Your task to perform on an android device: toggle translation in the chrome app Image 0: 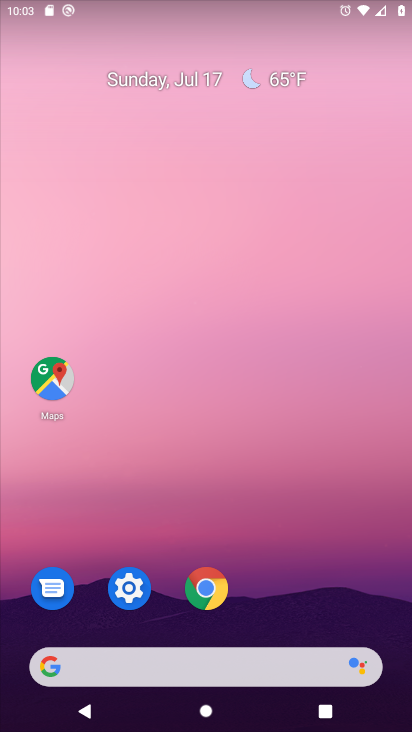
Step 0: drag from (252, 454) to (221, 212)
Your task to perform on an android device: toggle translation in the chrome app Image 1: 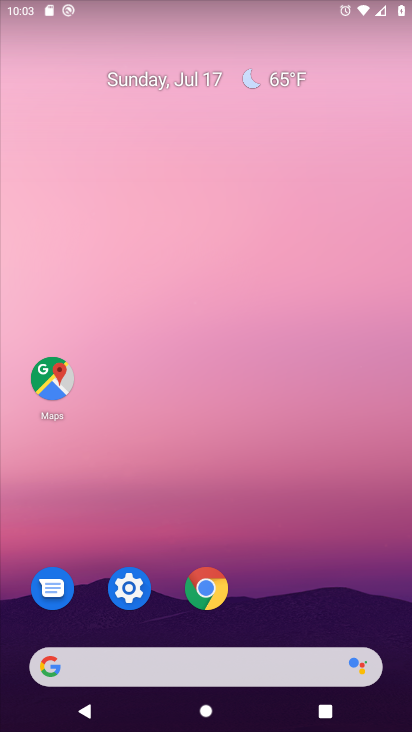
Step 1: drag from (191, 387) to (175, 282)
Your task to perform on an android device: toggle translation in the chrome app Image 2: 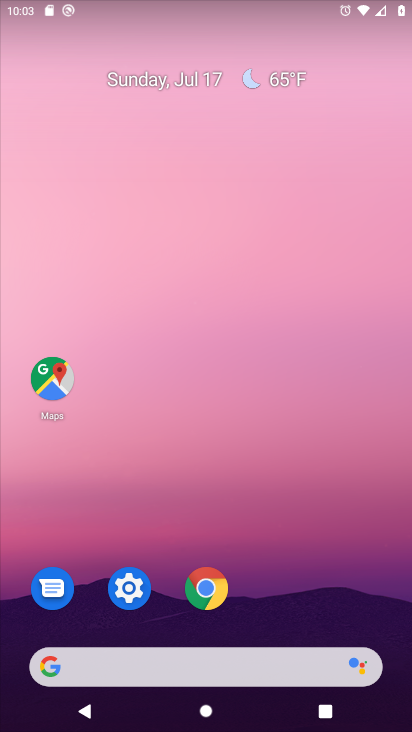
Step 2: drag from (237, 718) to (118, 65)
Your task to perform on an android device: toggle translation in the chrome app Image 3: 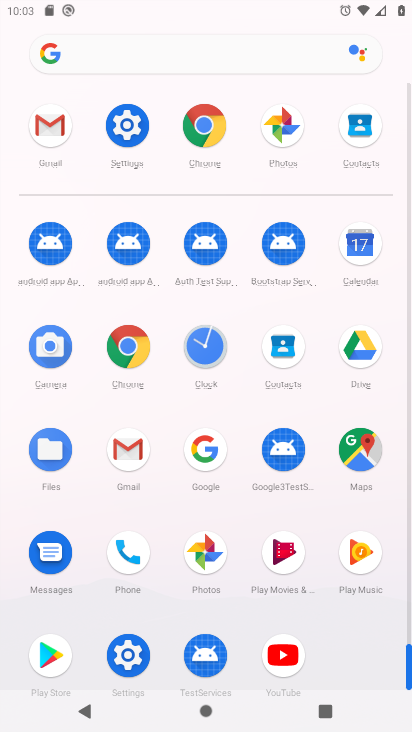
Step 3: drag from (276, 622) to (118, 3)
Your task to perform on an android device: toggle translation in the chrome app Image 4: 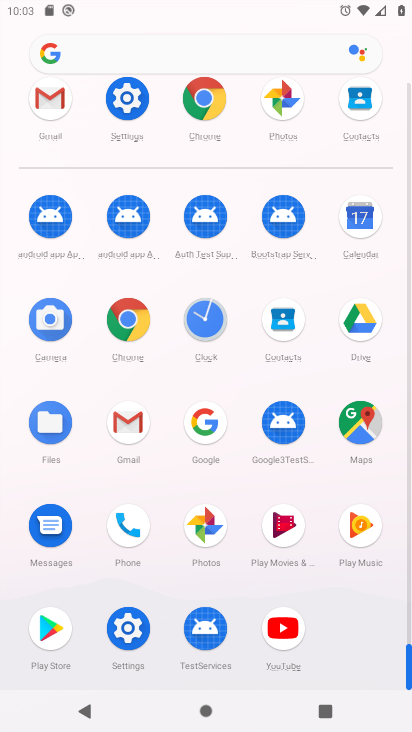
Step 4: click (118, 326)
Your task to perform on an android device: toggle translation in the chrome app Image 5: 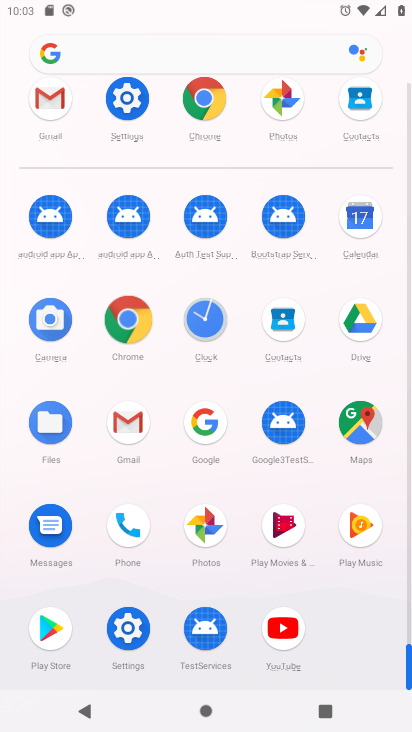
Step 5: click (123, 322)
Your task to perform on an android device: toggle translation in the chrome app Image 6: 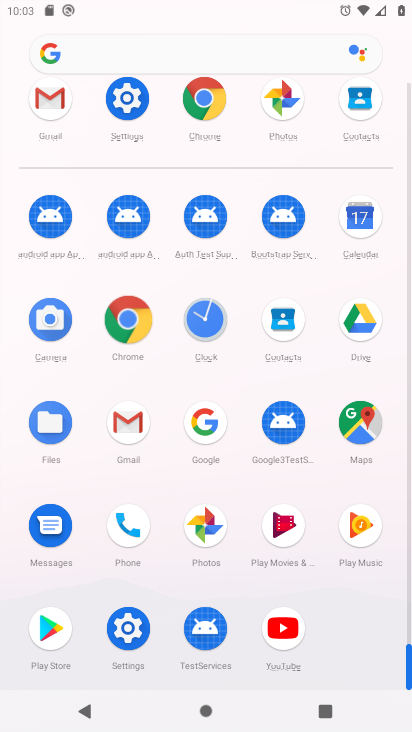
Step 6: click (127, 322)
Your task to perform on an android device: toggle translation in the chrome app Image 7: 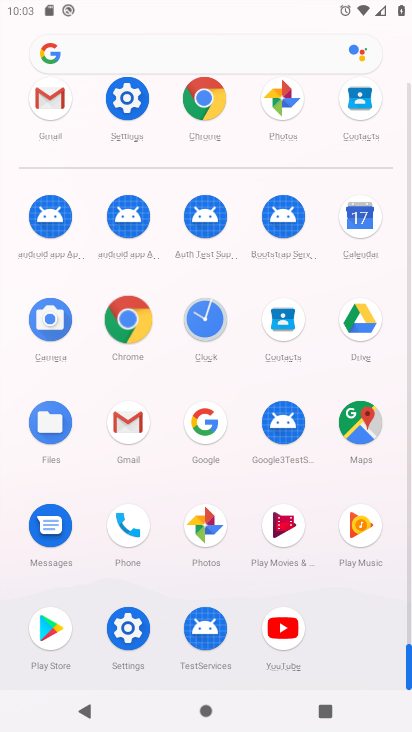
Step 7: click (127, 322)
Your task to perform on an android device: toggle translation in the chrome app Image 8: 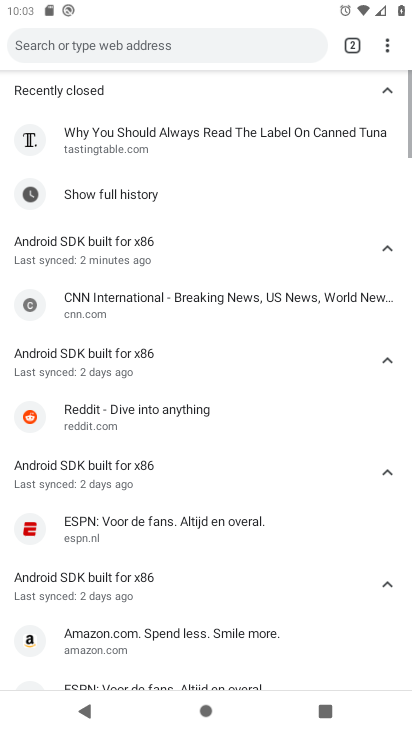
Step 8: click (128, 316)
Your task to perform on an android device: toggle translation in the chrome app Image 9: 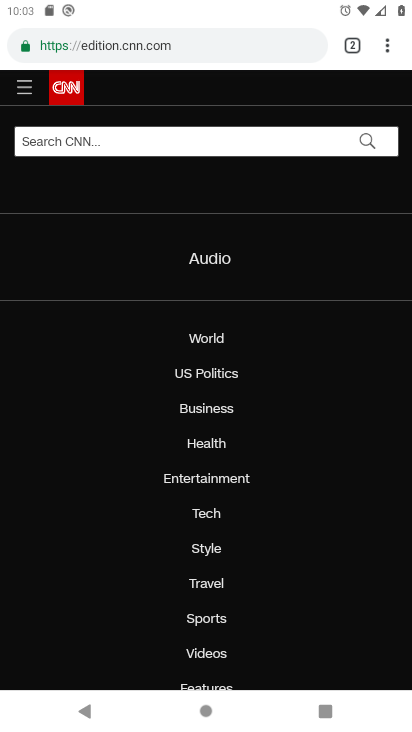
Step 9: drag from (204, 188) to (201, 685)
Your task to perform on an android device: toggle translation in the chrome app Image 10: 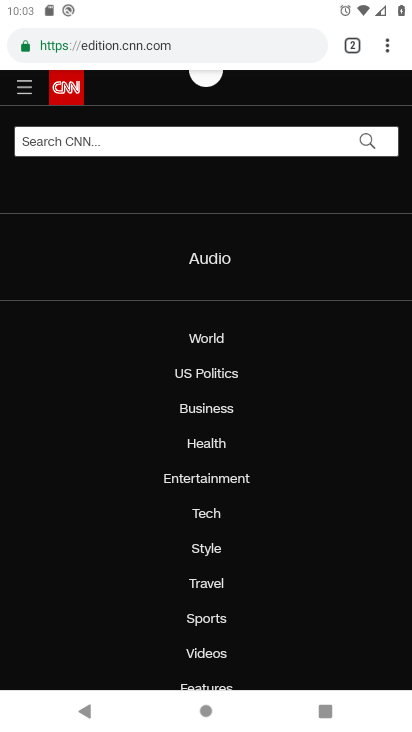
Step 10: drag from (120, 316) to (161, 636)
Your task to perform on an android device: toggle translation in the chrome app Image 11: 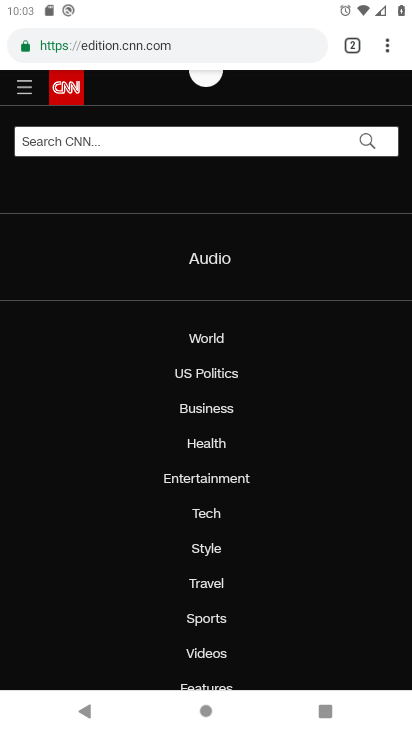
Step 11: click (223, 559)
Your task to perform on an android device: toggle translation in the chrome app Image 12: 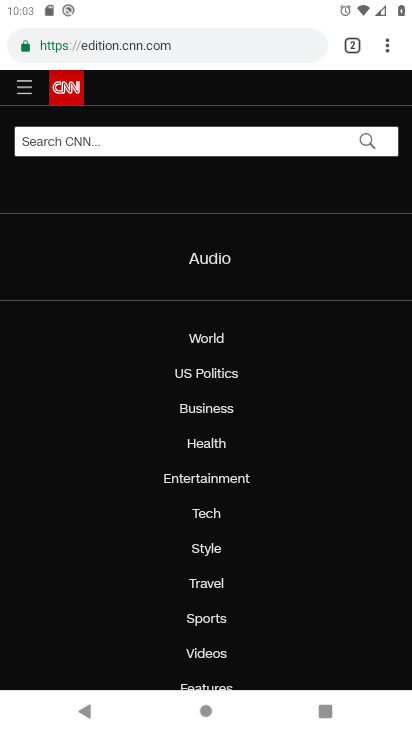
Step 12: drag from (201, 325) to (234, 544)
Your task to perform on an android device: toggle translation in the chrome app Image 13: 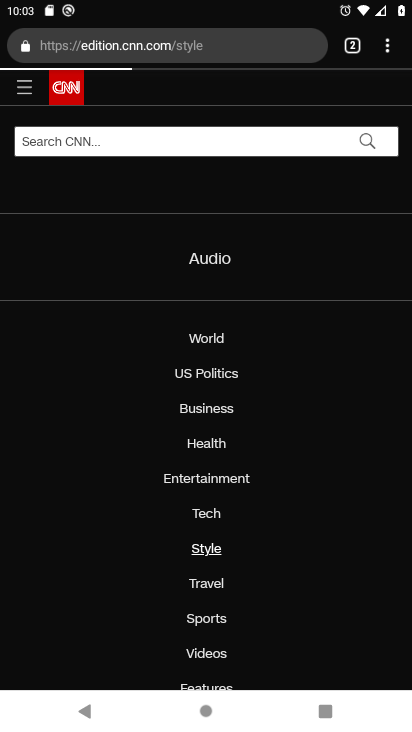
Step 13: drag from (169, 213) to (222, 563)
Your task to perform on an android device: toggle translation in the chrome app Image 14: 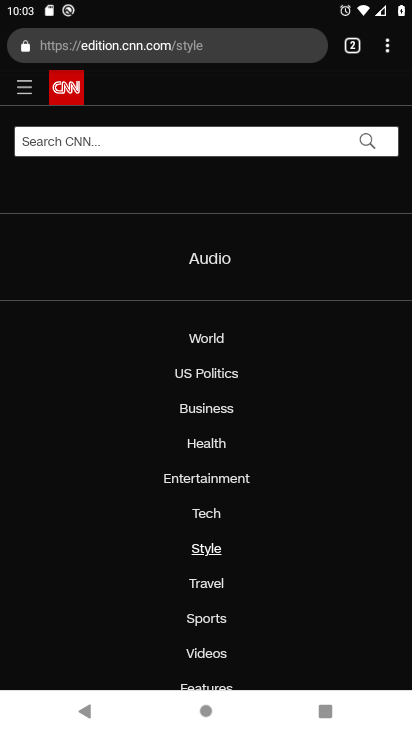
Step 14: drag from (150, 215) to (185, 509)
Your task to perform on an android device: toggle translation in the chrome app Image 15: 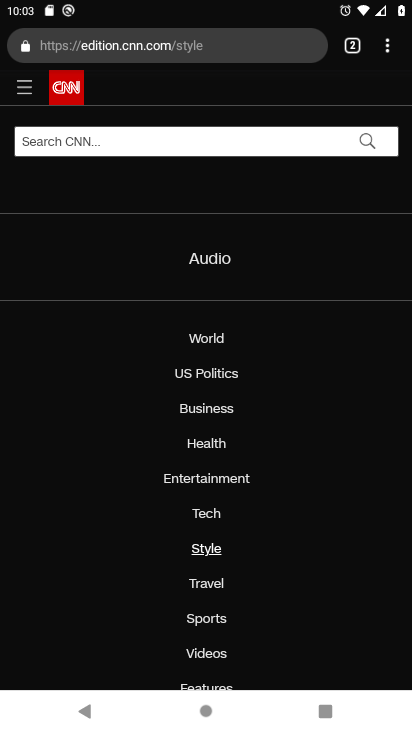
Step 15: drag from (159, 278) to (233, 615)
Your task to perform on an android device: toggle translation in the chrome app Image 16: 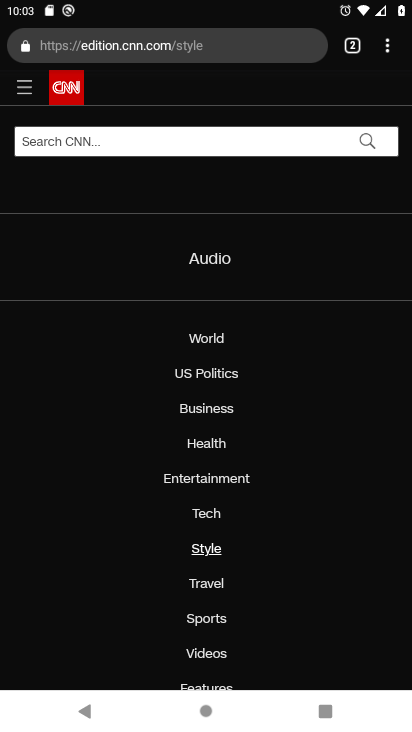
Step 16: drag from (218, 412) to (226, 500)
Your task to perform on an android device: toggle translation in the chrome app Image 17: 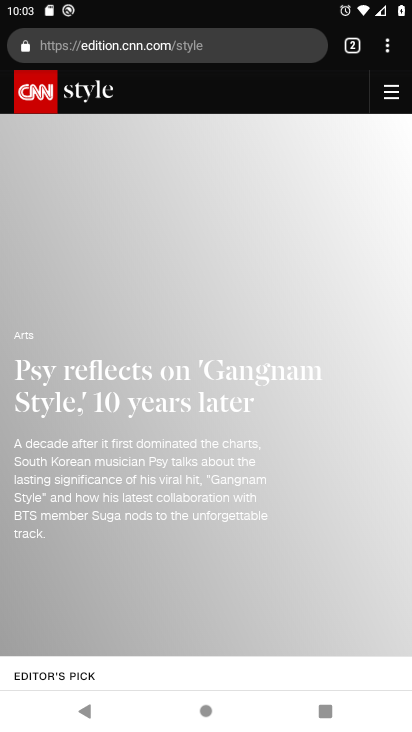
Step 17: drag from (172, 183) to (172, 520)
Your task to perform on an android device: toggle translation in the chrome app Image 18: 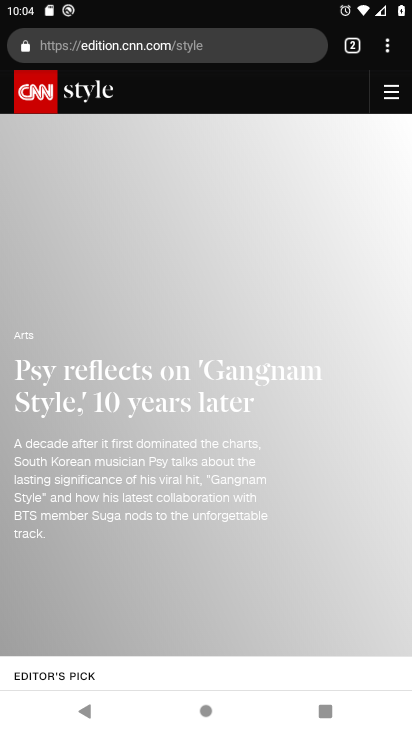
Step 18: drag from (390, 46) to (215, 548)
Your task to perform on an android device: toggle translation in the chrome app Image 19: 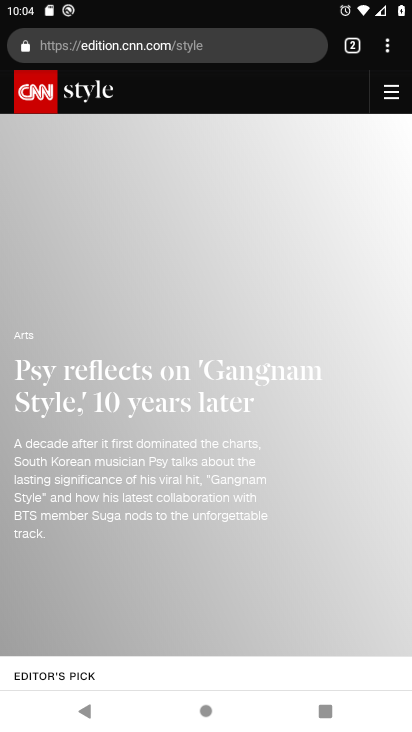
Step 19: click (216, 545)
Your task to perform on an android device: toggle translation in the chrome app Image 20: 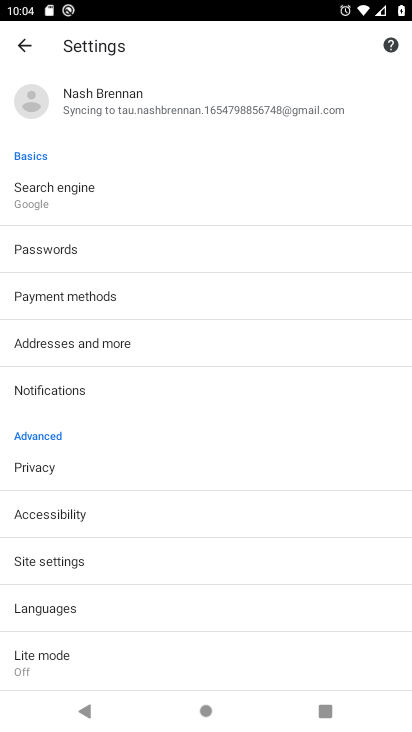
Step 20: click (49, 604)
Your task to perform on an android device: toggle translation in the chrome app Image 21: 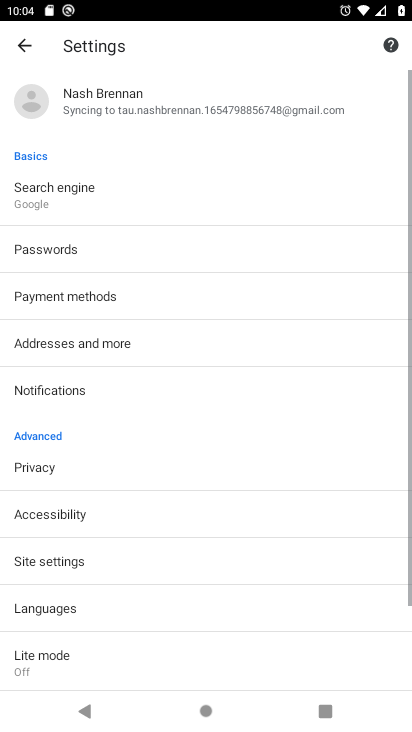
Step 21: click (48, 604)
Your task to perform on an android device: toggle translation in the chrome app Image 22: 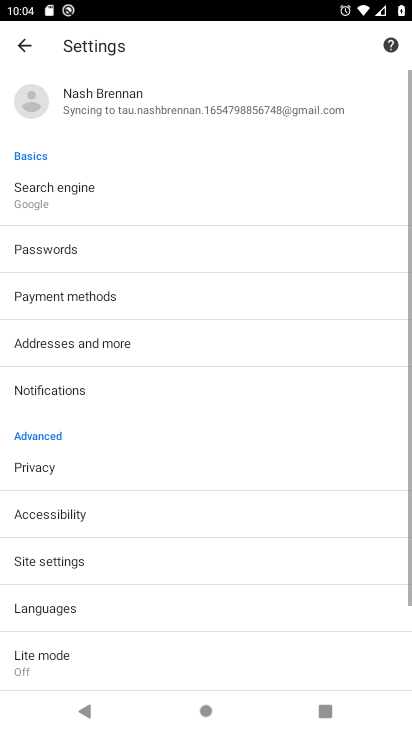
Step 22: click (48, 604)
Your task to perform on an android device: toggle translation in the chrome app Image 23: 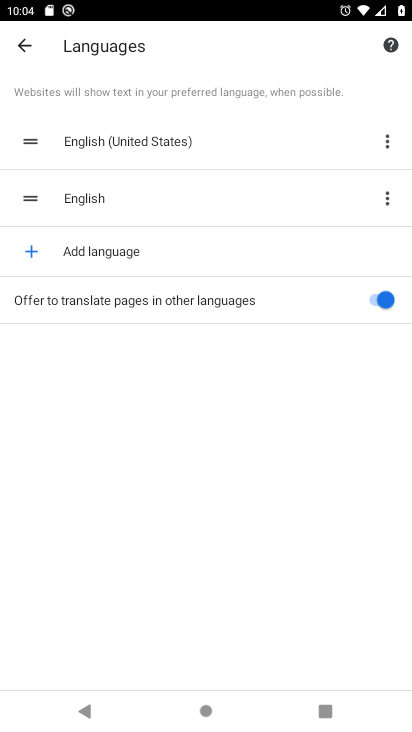
Step 23: click (381, 292)
Your task to perform on an android device: toggle translation in the chrome app Image 24: 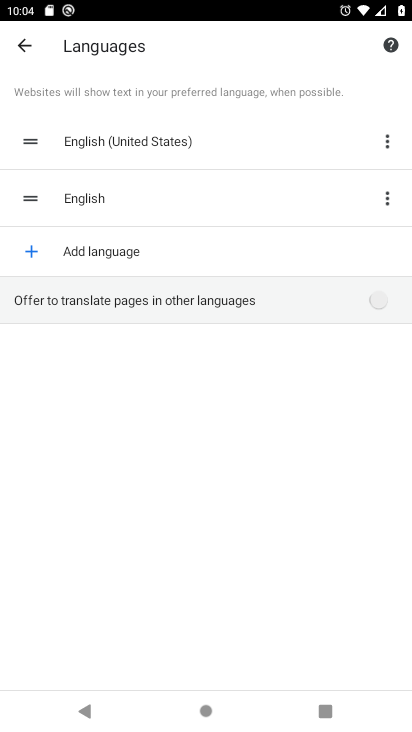
Step 24: click (382, 295)
Your task to perform on an android device: toggle translation in the chrome app Image 25: 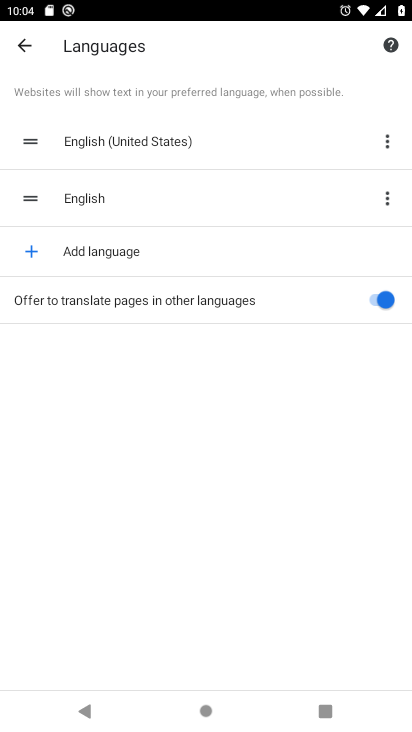
Step 25: click (385, 301)
Your task to perform on an android device: toggle translation in the chrome app Image 26: 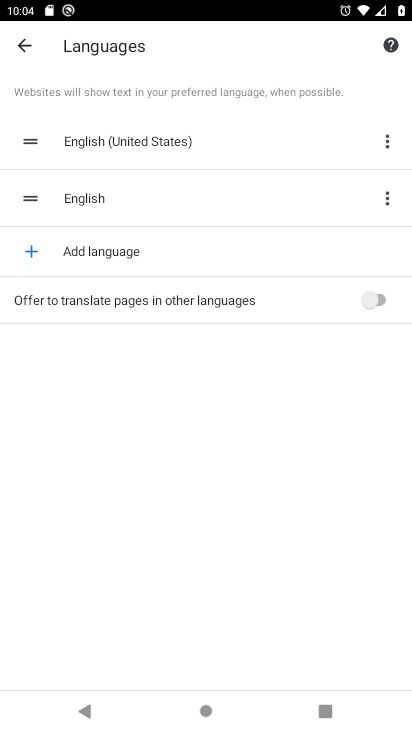
Step 26: task complete